Your task to perform on an android device: Open the calendar and show me this week's events? Image 0: 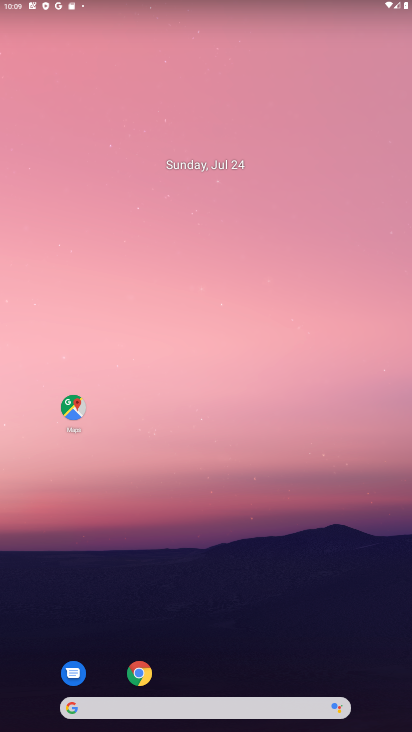
Step 0: drag from (23, 668) to (319, 36)
Your task to perform on an android device: Open the calendar and show me this week's events? Image 1: 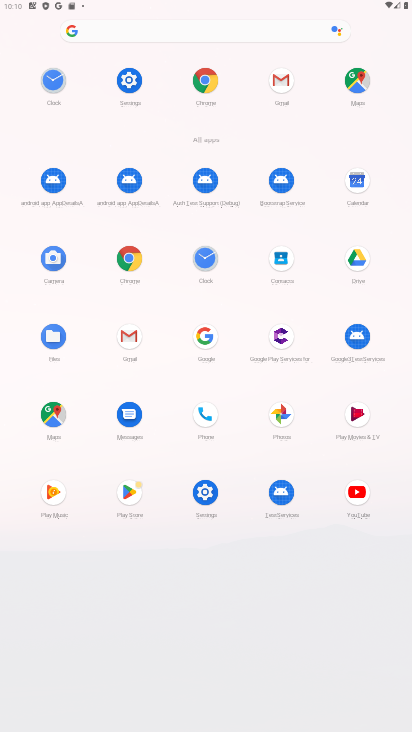
Step 1: click (349, 184)
Your task to perform on an android device: Open the calendar and show me this week's events? Image 2: 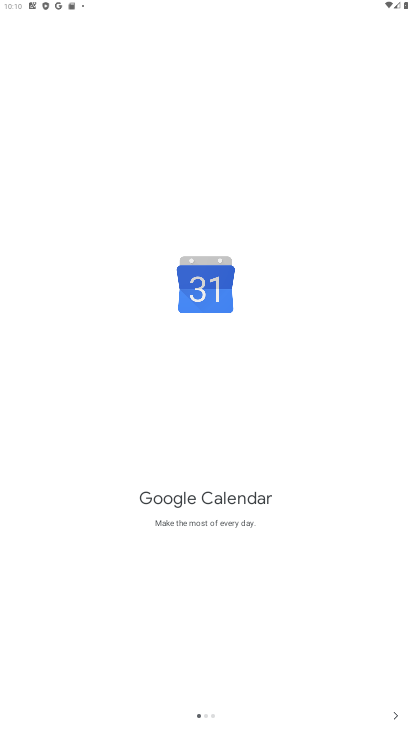
Step 2: click (393, 717)
Your task to perform on an android device: Open the calendar and show me this week's events? Image 3: 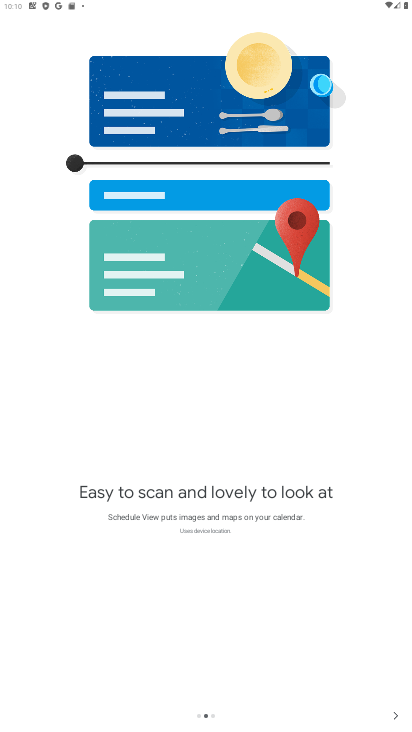
Step 3: click (400, 721)
Your task to perform on an android device: Open the calendar and show me this week's events? Image 4: 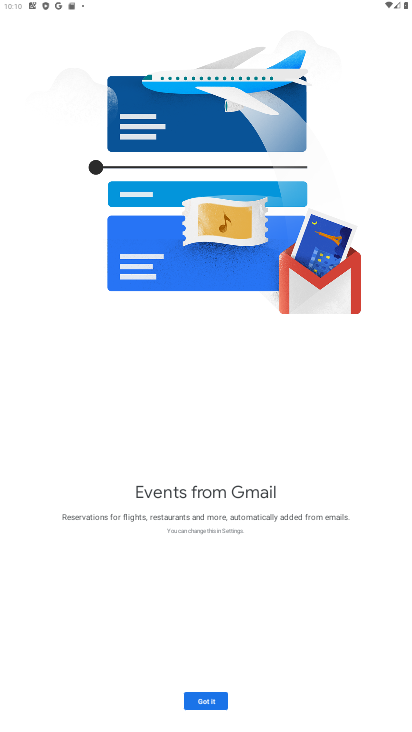
Step 4: click (216, 688)
Your task to perform on an android device: Open the calendar and show me this week's events? Image 5: 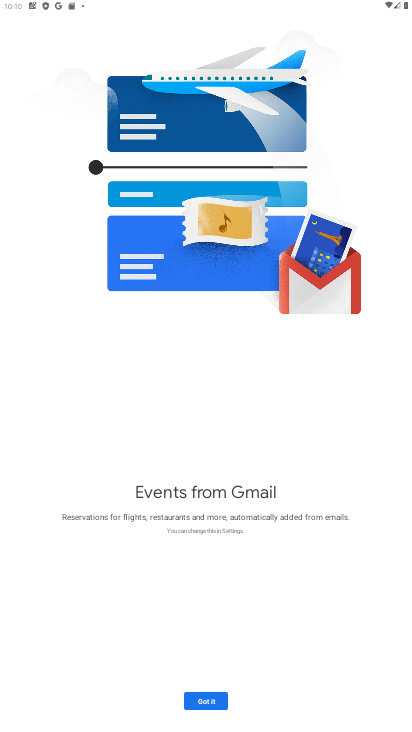
Step 5: click (204, 704)
Your task to perform on an android device: Open the calendar and show me this week's events? Image 6: 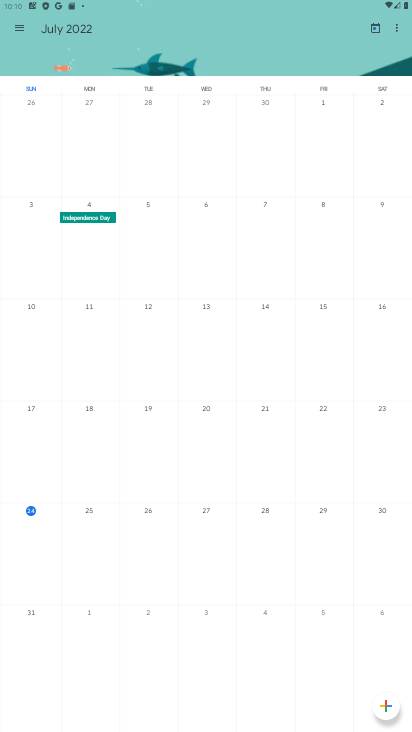
Step 6: click (9, 26)
Your task to perform on an android device: Open the calendar and show me this week's events? Image 7: 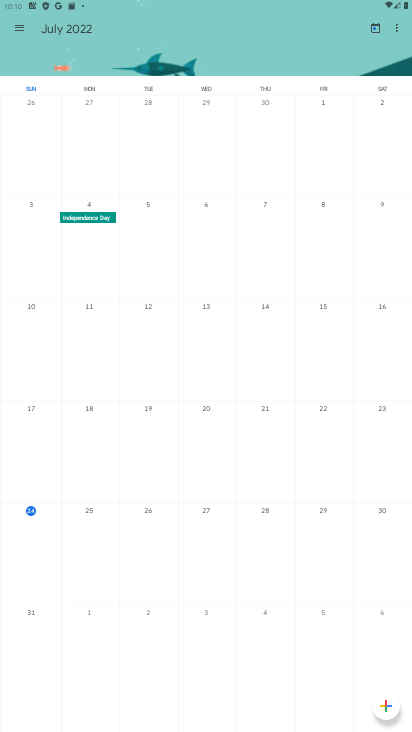
Step 7: click (18, 25)
Your task to perform on an android device: Open the calendar and show me this week's events? Image 8: 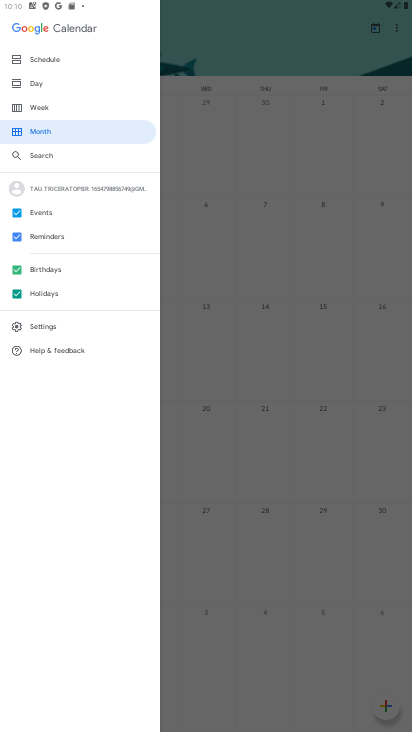
Step 8: task complete